Your task to perform on an android device: turn off javascript in the chrome app Image 0: 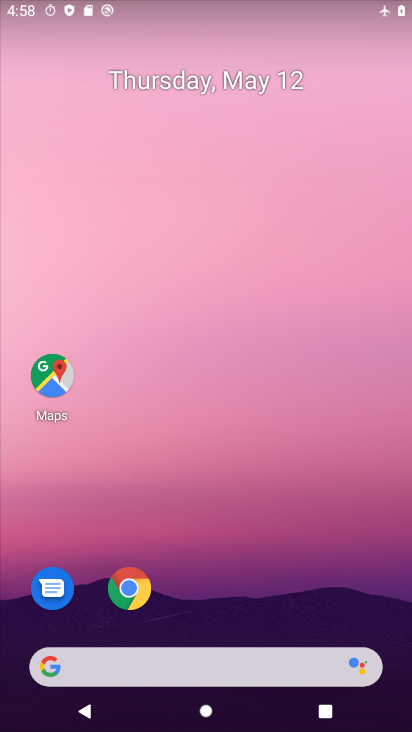
Step 0: drag from (247, 561) to (300, 91)
Your task to perform on an android device: turn off javascript in the chrome app Image 1: 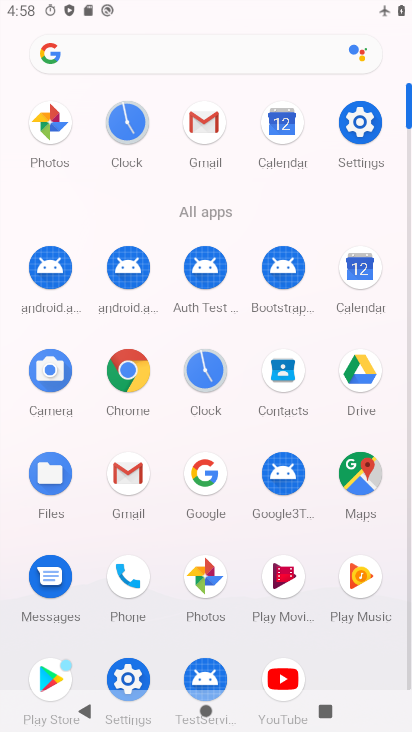
Step 1: click (121, 370)
Your task to perform on an android device: turn off javascript in the chrome app Image 2: 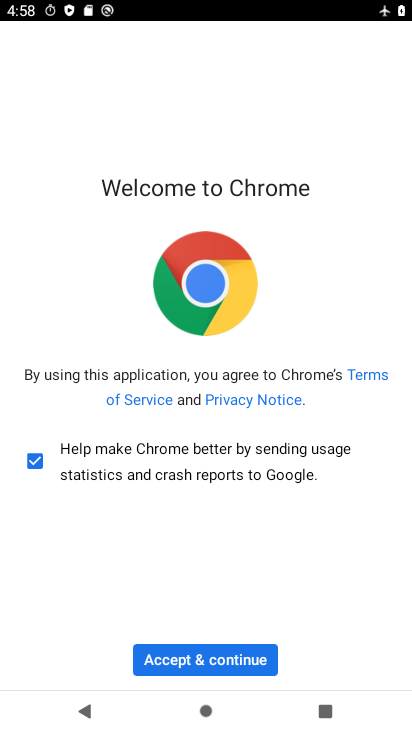
Step 2: click (229, 660)
Your task to perform on an android device: turn off javascript in the chrome app Image 3: 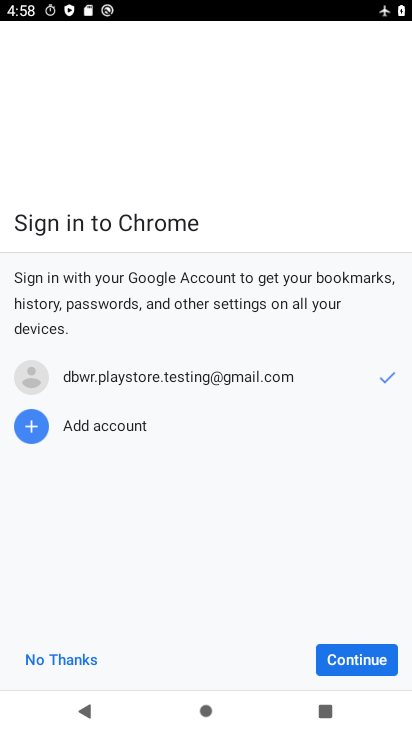
Step 3: click (357, 667)
Your task to perform on an android device: turn off javascript in the chrome app Image 4: 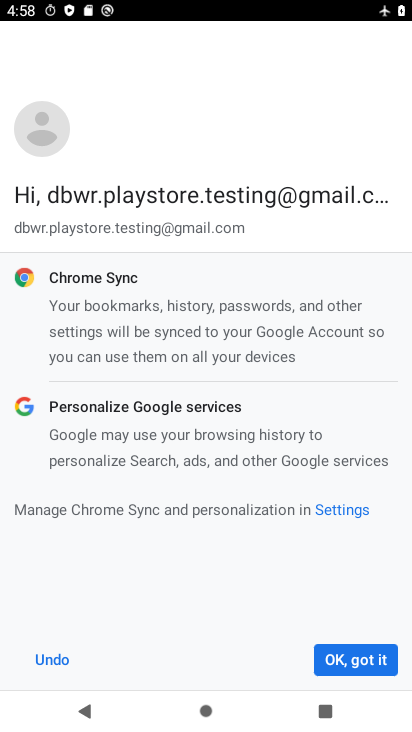
Step 4: click (356, 659)
Your task to perform on an android device: turn off javascript in the chrome app Image 5: 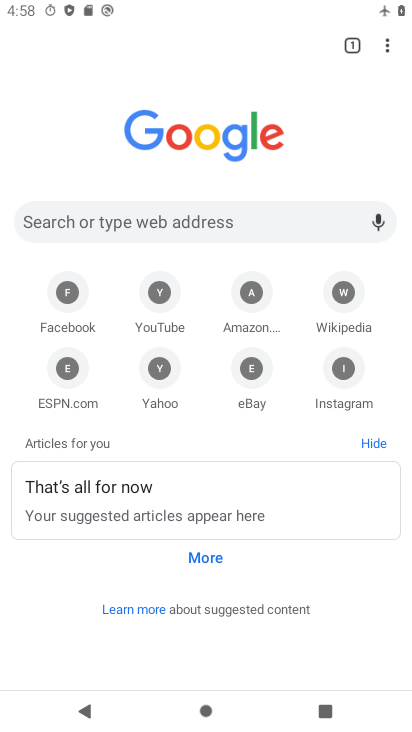
Step 5: click (389, 47)
Your task to perform on an android device: turn off javascript in the chrome app Image 6: 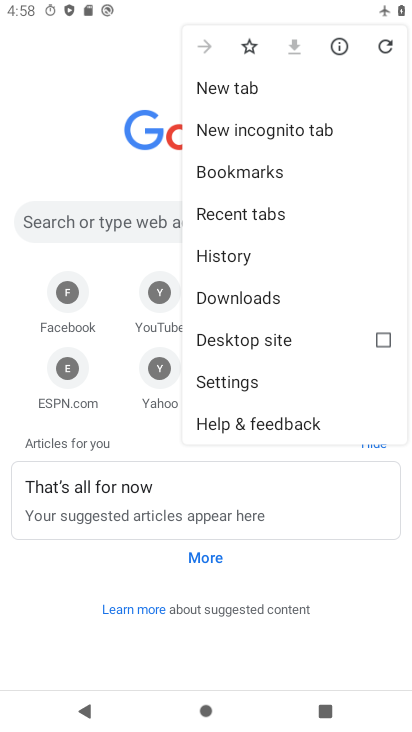
Step 6: click (230, 382)
Your task to perform on an android device: turn off javascript in the chrome app Image 7: 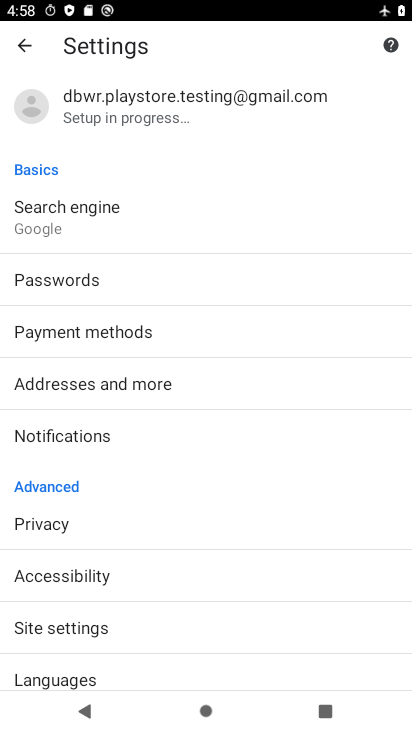
Step 7: drag from (145, 471) to (195, 250)
Your task to perform on an android device: turn off javascript in the chrome app Image 8: 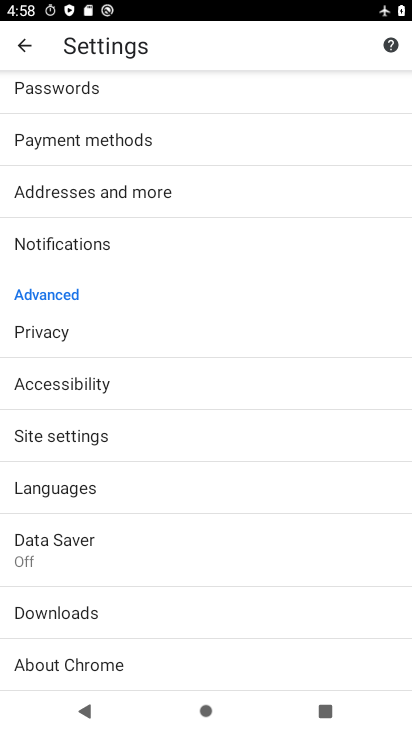
Step 8: click (63, 441)
Your task to perform on an android device: turn off javascript in the chrome app Image 9: 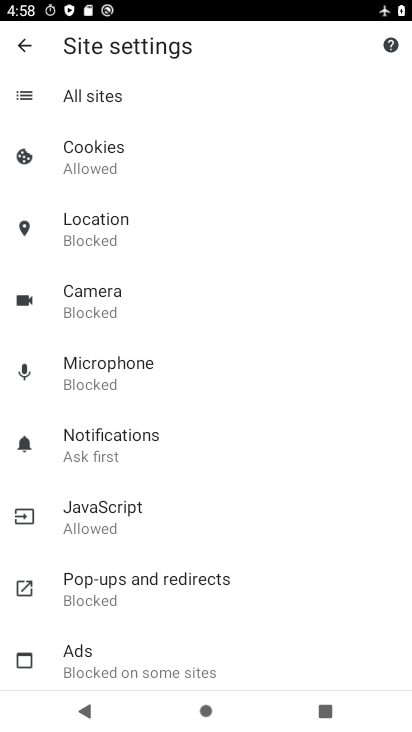
Step 9: click (105, 523)
Your task to perform on an android device: turn off javascript in the chrome app Image 10: 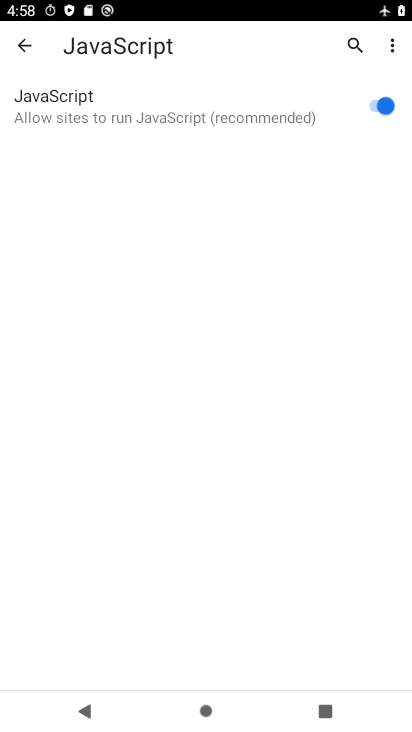
Step 10: click (354, 110)
Your task to perform on an android device: turn off javascript in the chrome app Image 11: 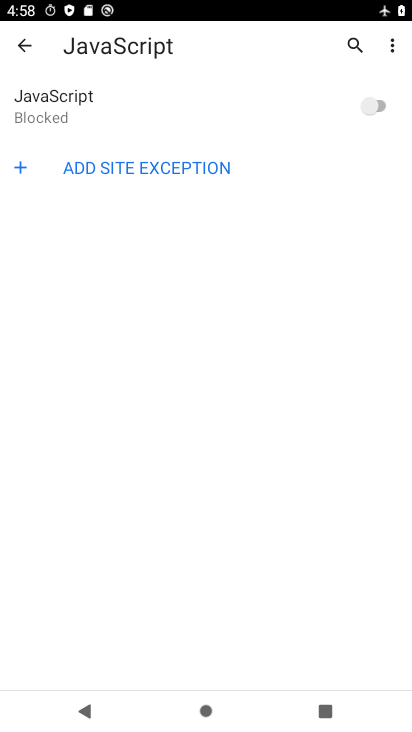
Step 11: task complete